Your task to perform on an android device: see creations saved in the google photos Image 0: 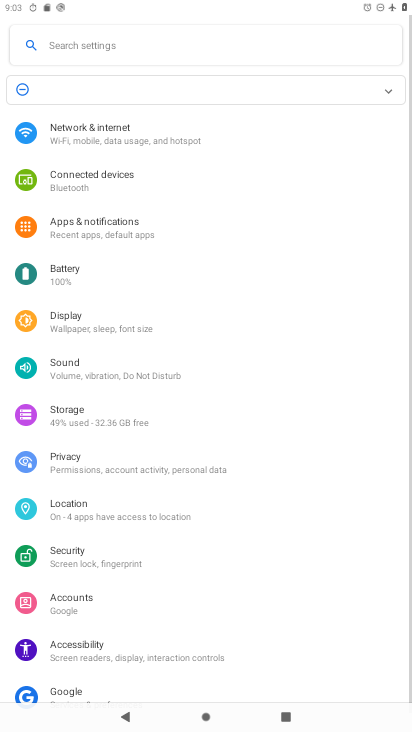
Step 0: press home button
Your task to perform on an android device: see creations saved in the google photos Image 1: 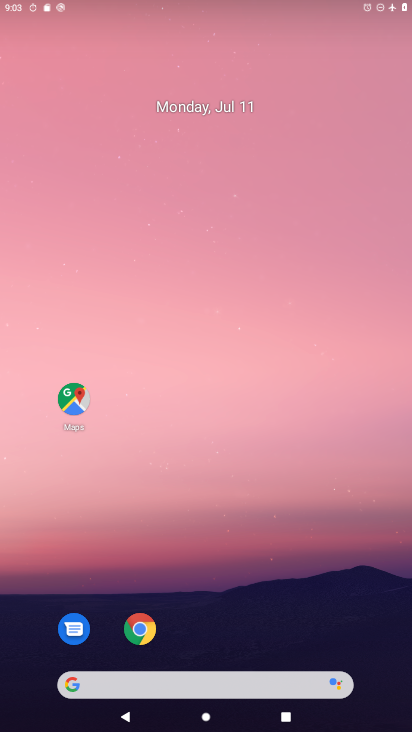
Step 1: drag from (202, 630) to (230, 91)
Your task to perform on an android device: see creations saved in the google photos Image 2: 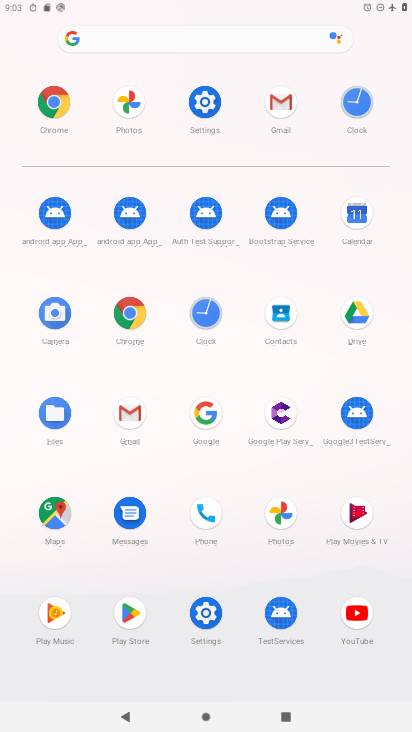
Step 2: click (279, 517)
Your task to perform on an android device: see creations saved in the google photos Image 3: 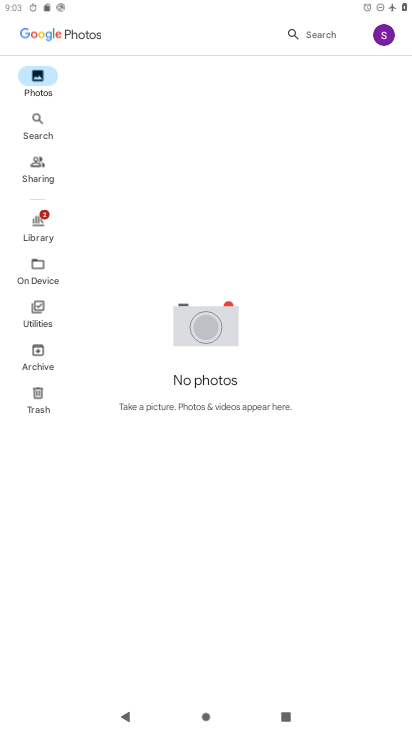
Step 3: click (382, 31)
Your task to perform on an android device: see creations saved in the google photos Image 4: 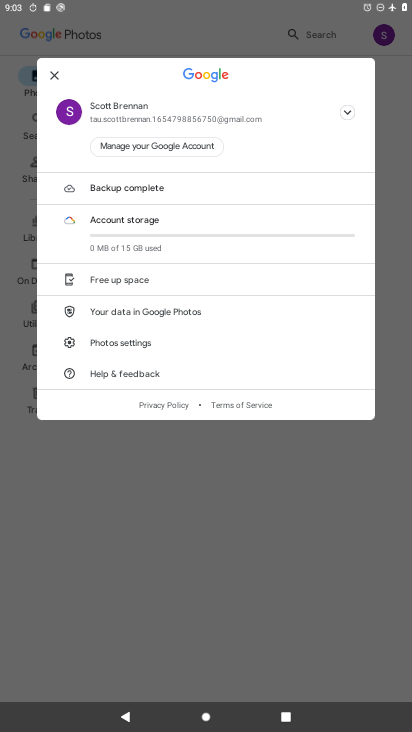
Step 4: click (158, 343)
Your task to perform on an android device: see creations saved in the google photos Image 5: 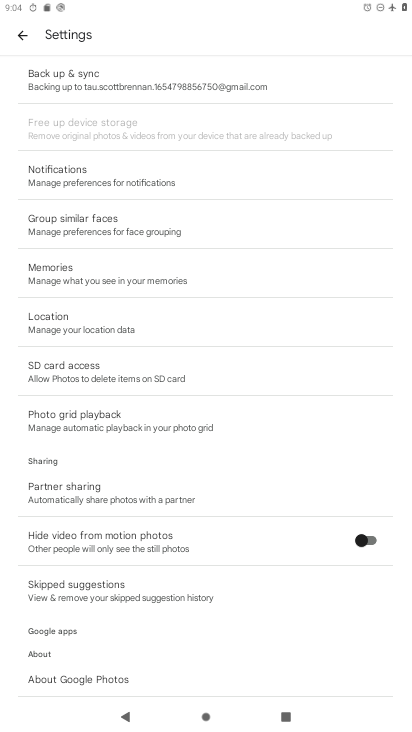
Step 5: task complete